Your task to perform on an android device: delete location history Image 0: 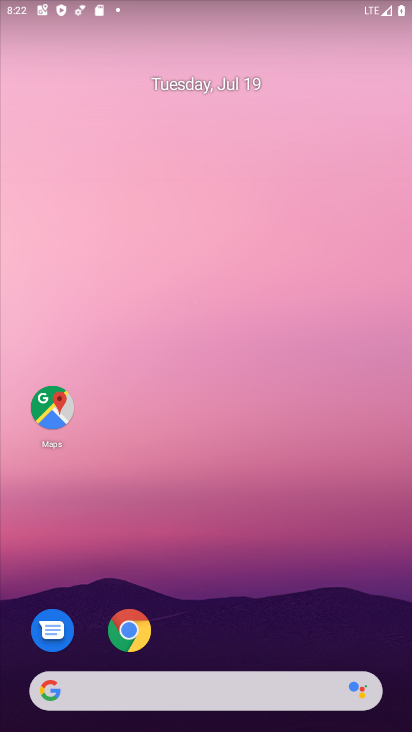
Step 0: drag from (232, 688) to (259, 300)
Your task to perform on an android device: delete location history Image 1: 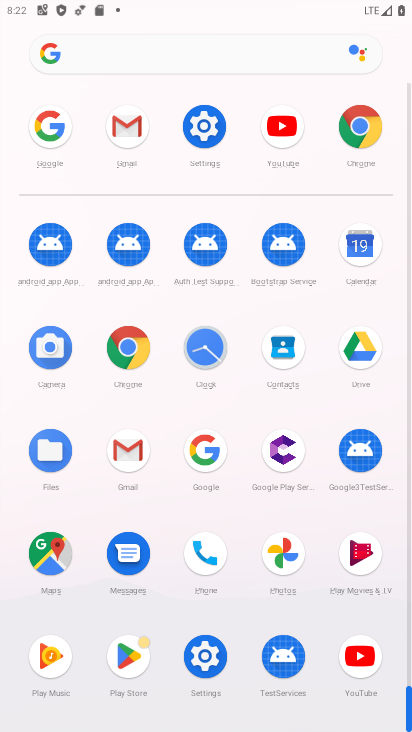
Step 1: click (217, 132)
Your task to perform on an android device: delete location history Image 2: 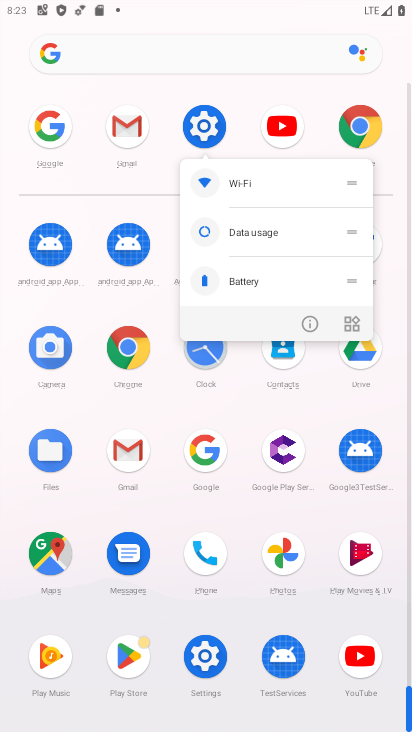
Step 2: click (209, 128)
Your task to perform on an android device: delete location history Image 3: 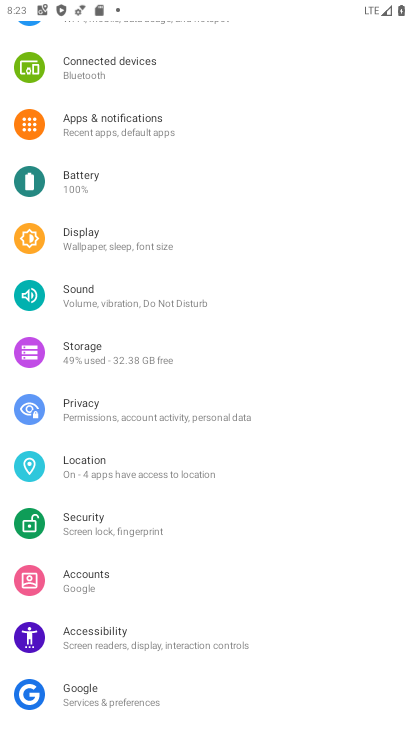
Step 3: click (110, 474)
Your task to perform on an android device: delete location history Image 4: 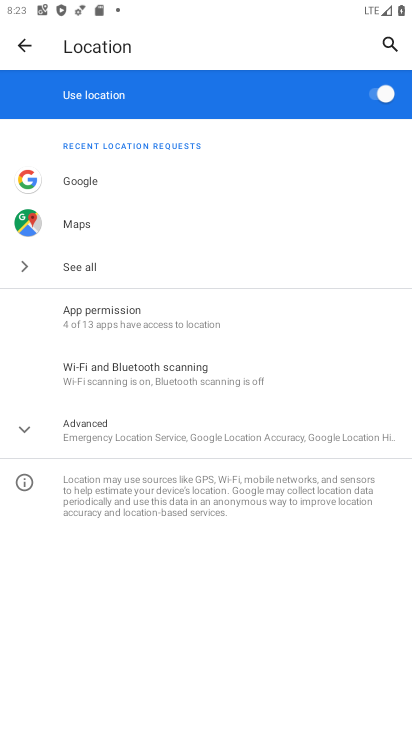
Step 4: click (167, 416)
Your task to perform on an android device: delete location history Image 5: 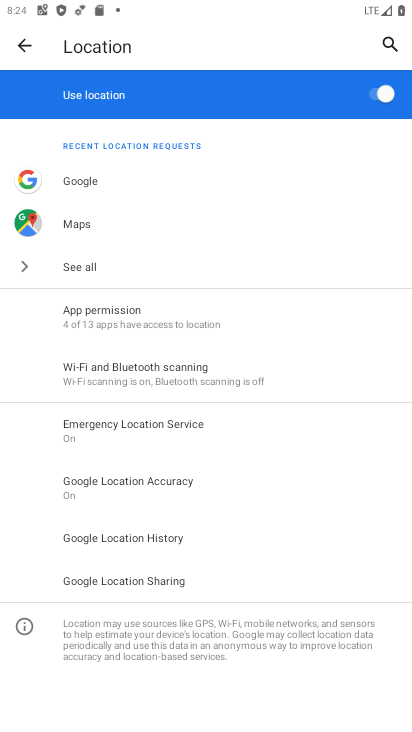
Step 5: click (168, 545)
Your task to perform on an android device: delete location history Image 6: 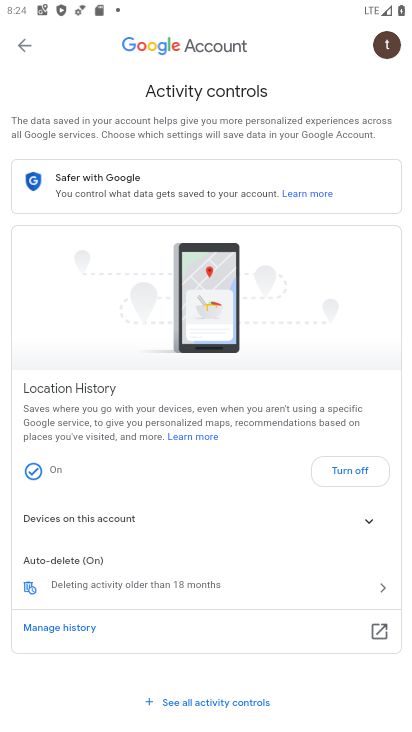
Step 6: click (263, 593)
Your task to perform on an android device: delete location history Image 7: 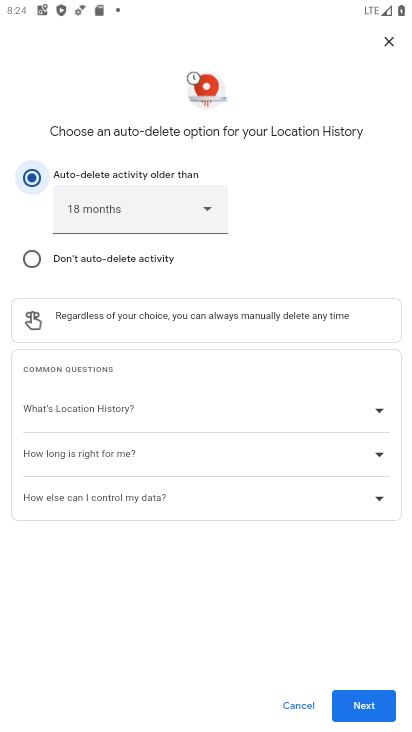
Step 7: click (368, 715)
Your task to perform on an android device: delete location history Image 8: 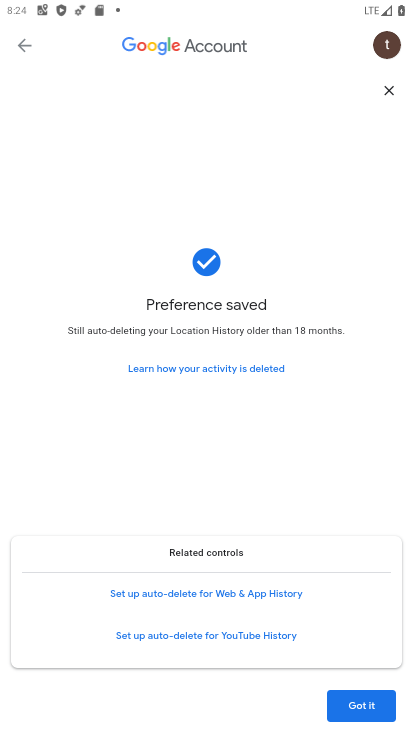
Step 8: click (370, 713)
Your task to perform on an android device: delete location history Image 9: 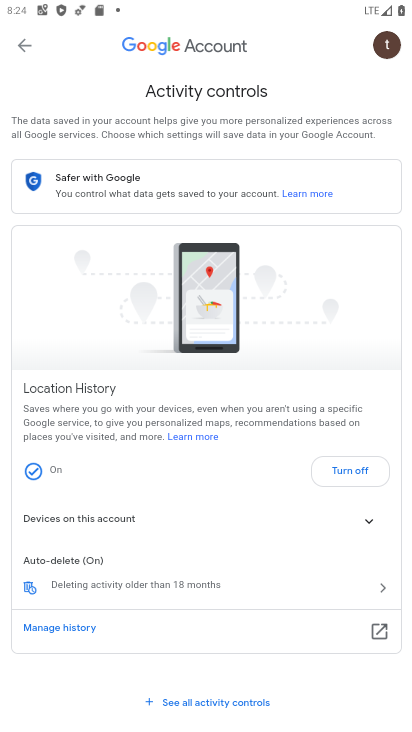
Step 9: task complete